Your task to perform on an android device: Open accessibility settings Image 0: 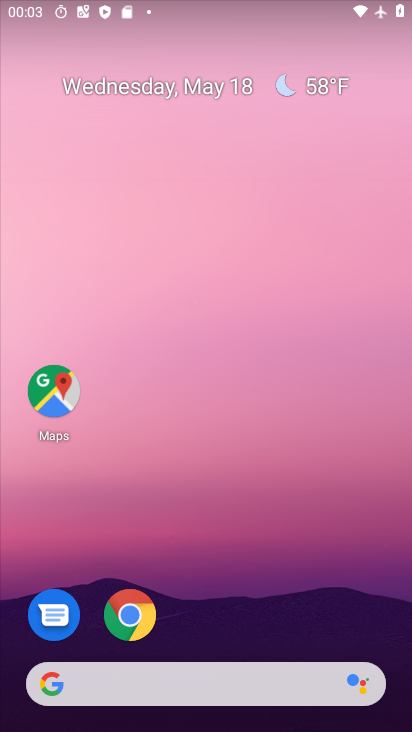
Step 0: drag from (253, 630) to (240, 156)
Your task to perform on an android device: Open accessibility settings Image 1: 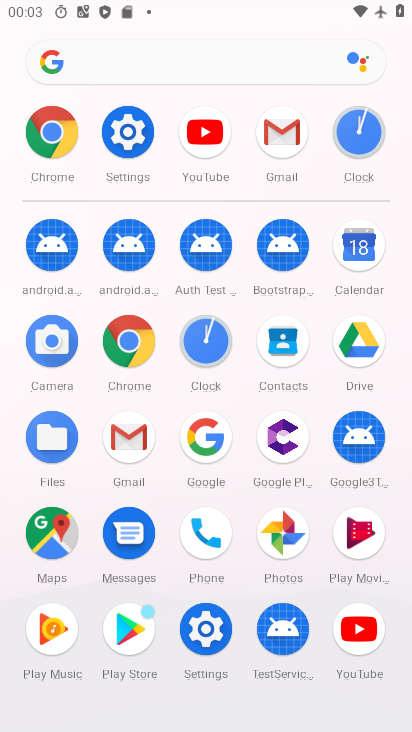
Step 1: click (135, 142)
Your task to perform on an android device: Open accessibility settings Image 2: 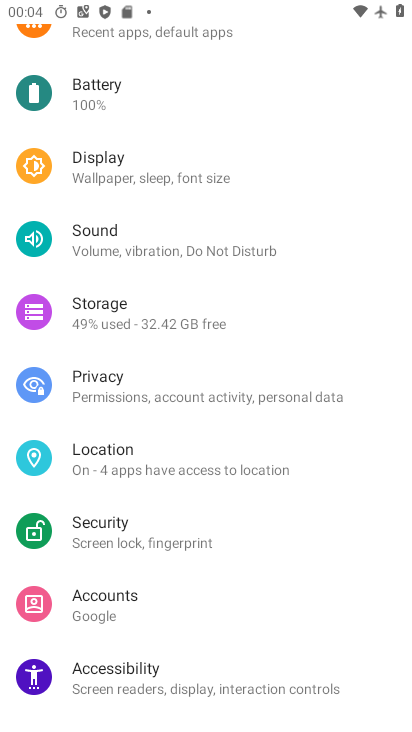
Step 2: click (170, 682)
Your task to perform on an android device: Open accessibility settings Image 3: 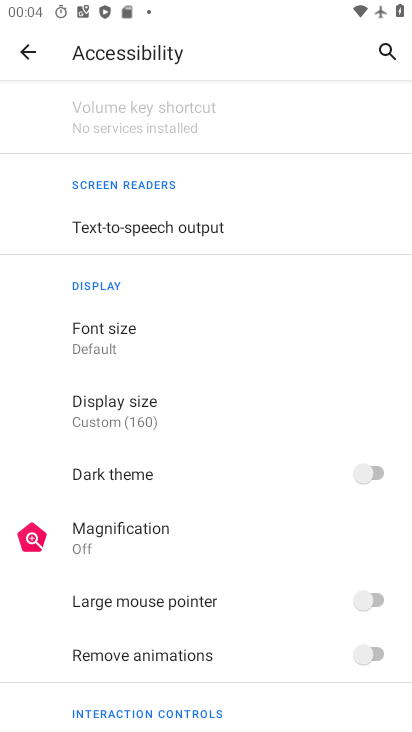
Step 3: task complete